Your task to perform on an android device: empty trash in the gmail app Image 0: 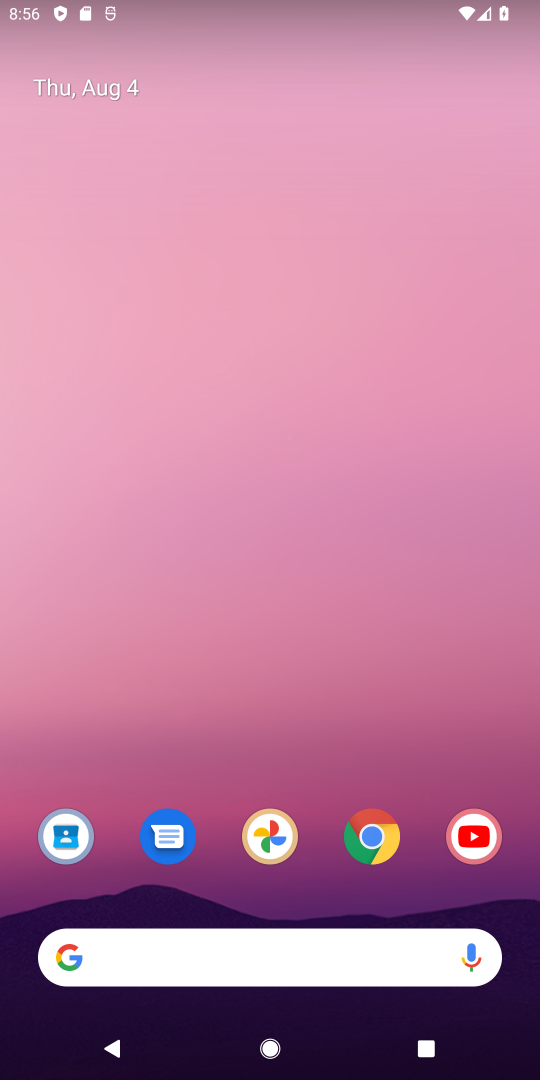
Step 0: drag from (359, 731) to (439, 10)
Your task to perform on an android device: empty trash in the gmail app Image 1: 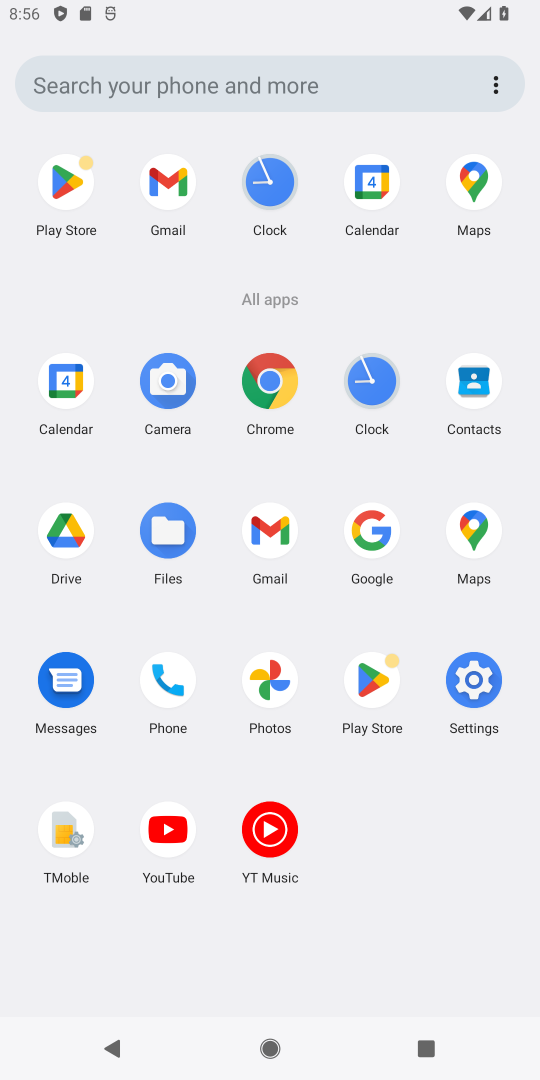
Step 1: click (277, 535)
Your task to perform on an android device: empty trash in the gmail app Image 2: 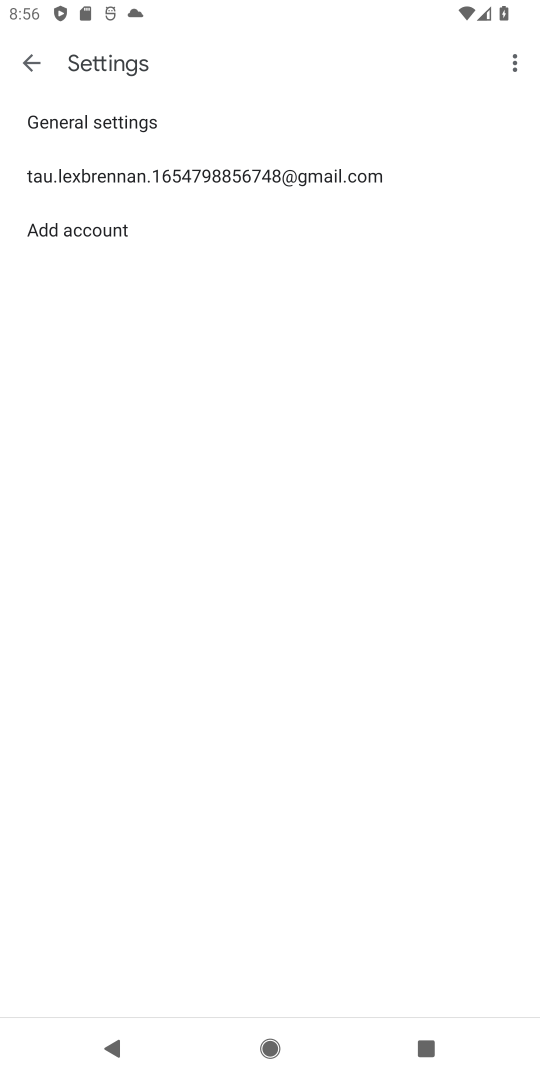
Step 2: click (32, 49)
Your task to perform on an android device: empty trash in the gmail app Image 3: 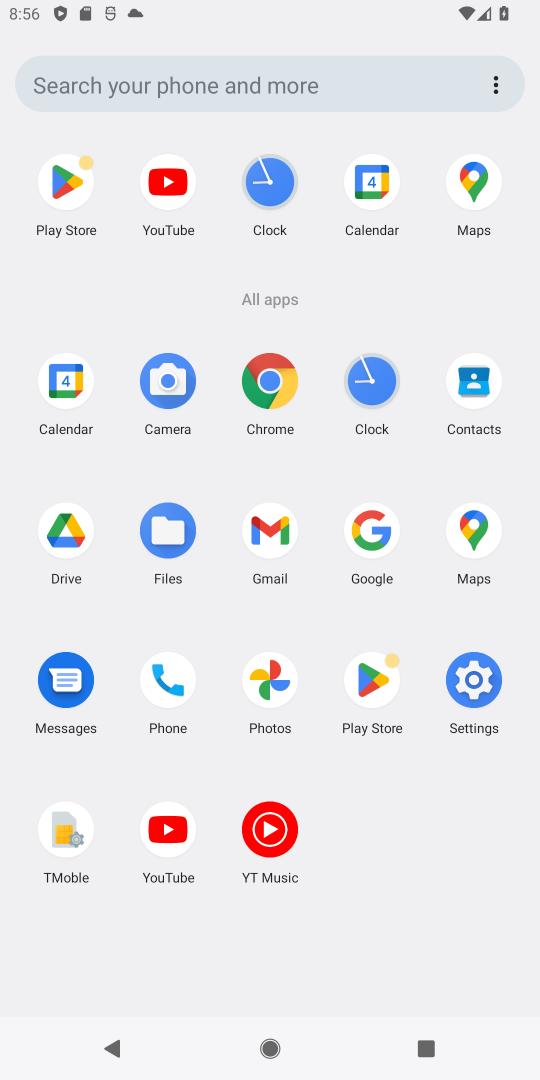
Step 3: click (268, 535)
Your task to perform on an android device: empty trash in the gmail app Image 4: 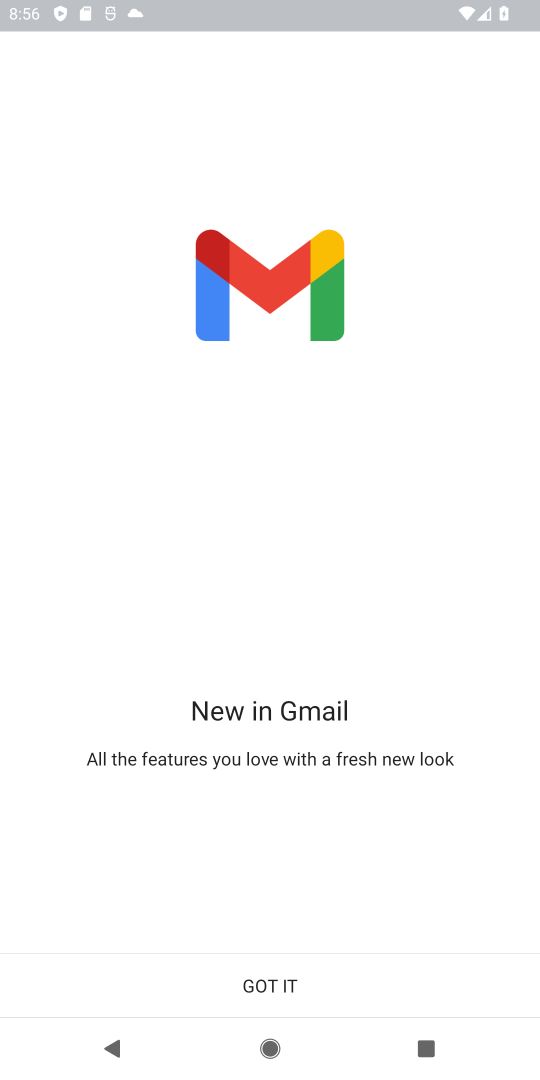
Step 4: click (241, 978)
Your task to perform on an android device: empty trash in the gmail app Image 5: 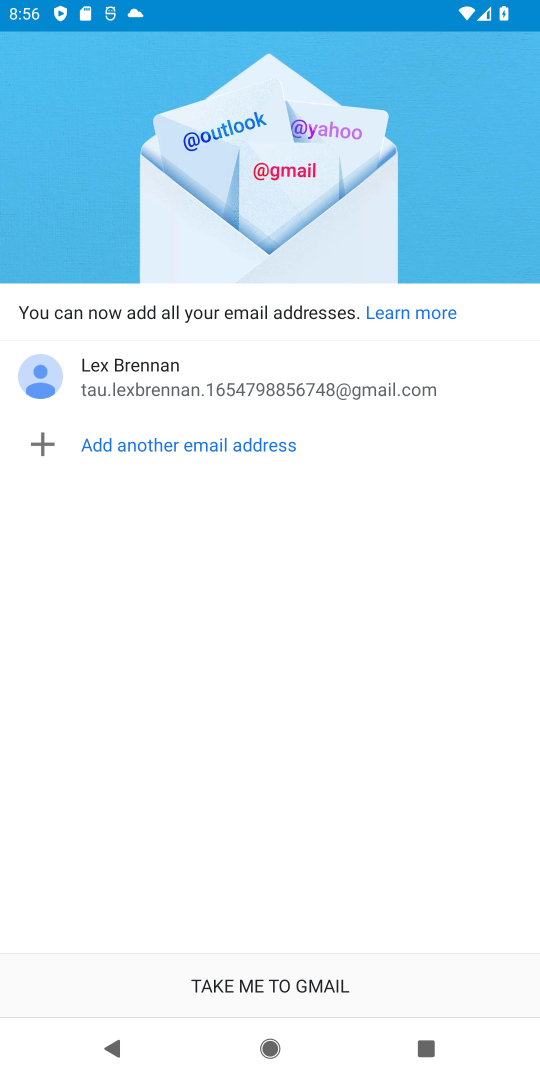
Step 5: click (237, 994)
Your task to perform on an android device: empty trash in the gmail app Image 6: 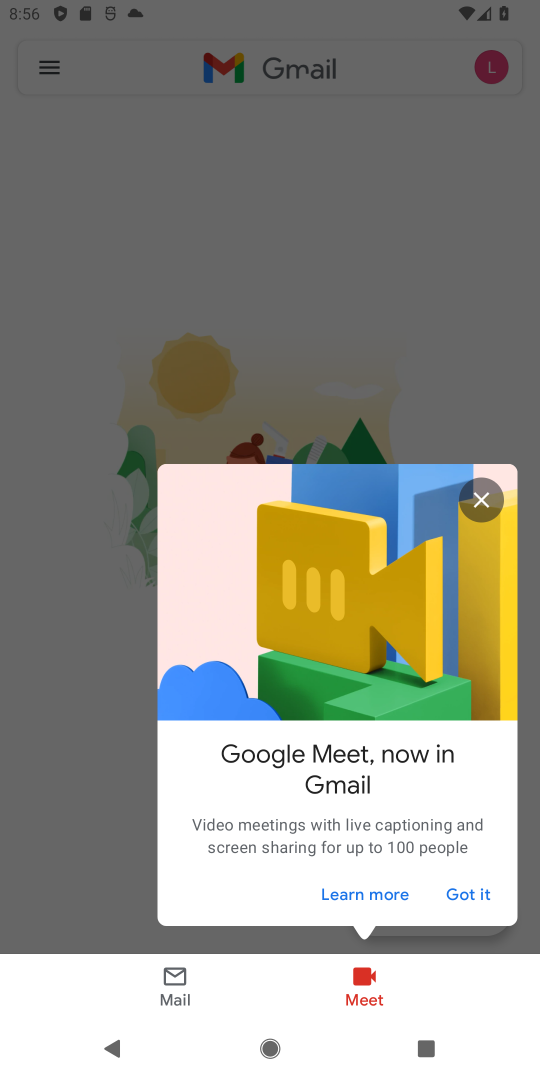
Step 6: click (469, 894)
Your task to perform on an android device: empty trash in the gmail app Image 7: 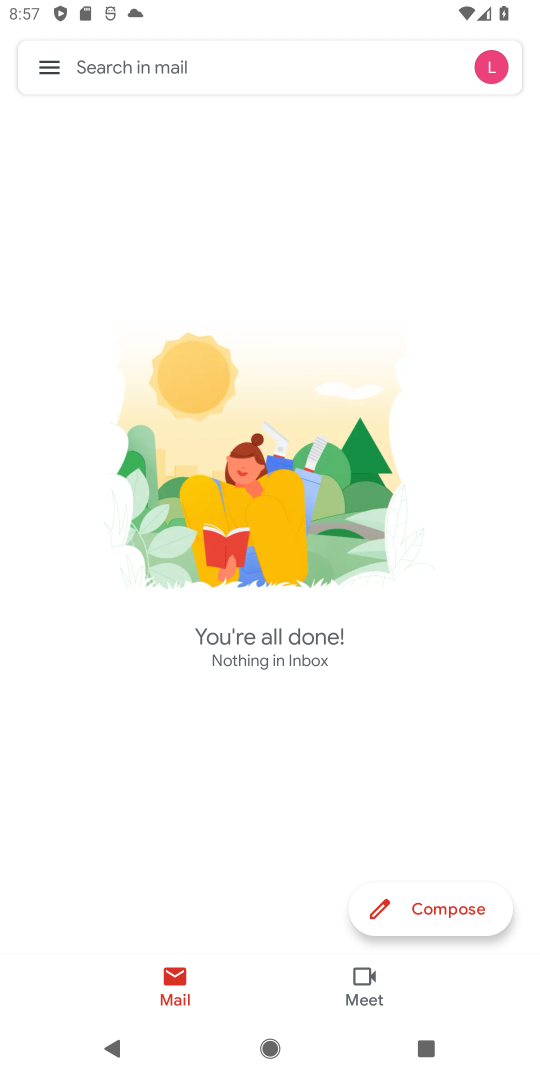
Step 7: click (47, 67)
Your task to perform on an android device: empty trash in the gmail app Image 8: 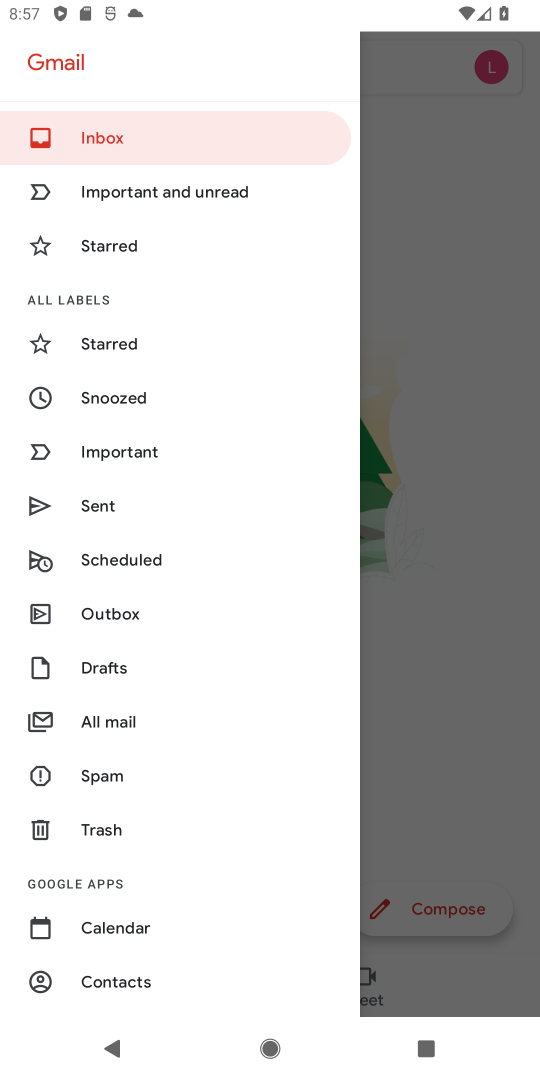
Step 8: click (98, 830)
Your task to perform on an android device: empty trash in the gmail app Image 9: 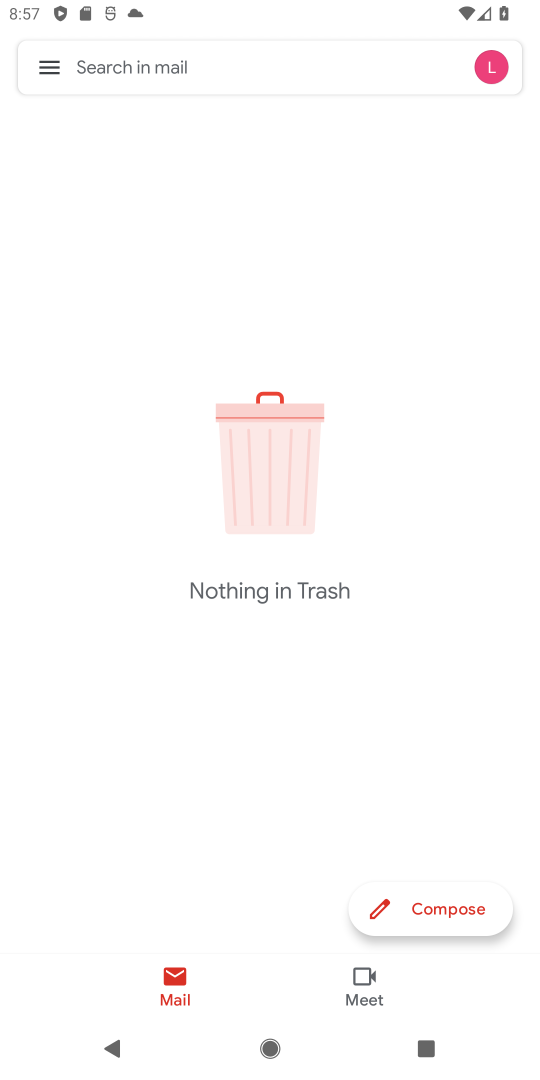
Step 9: task complete